Your task to perform on an android device: Open the calendar app, open the side menu, and click the "Day" option Image 0: 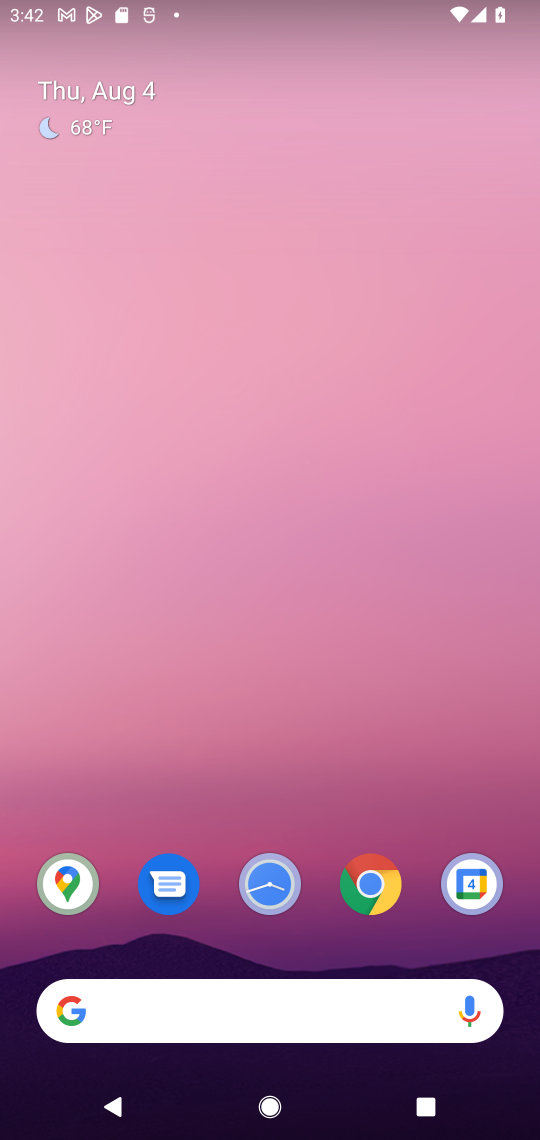
Step 0: drag from (323, 956) to (365, 202)
Your task to perform on an android device: Open the calendar app, open the side menu, and click the "Day" option Image 1: 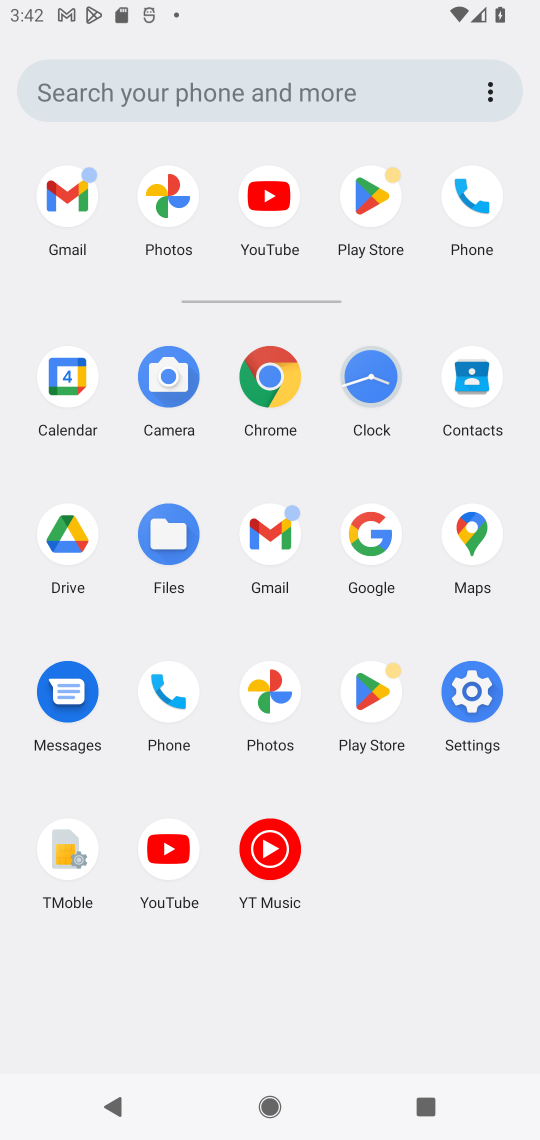
Step 1: task complete